Your task to perform on an android device: turn on the 12-hour format for clock Image 0: 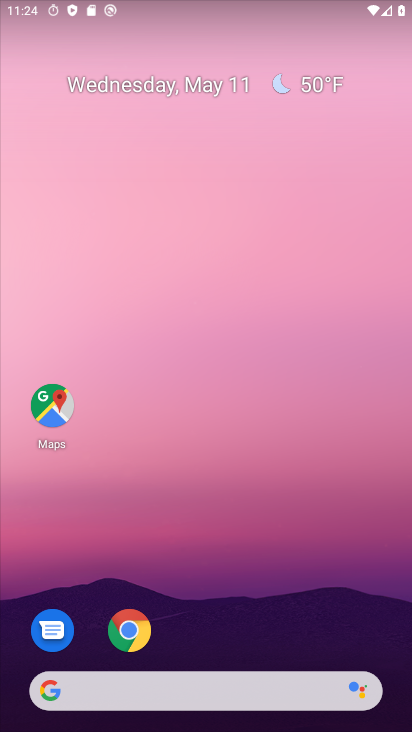
Step 0: drag from (209, 524) to (206, 240)
Your task to perform on an android device: turn on the 12-hour format for clock Image 1: 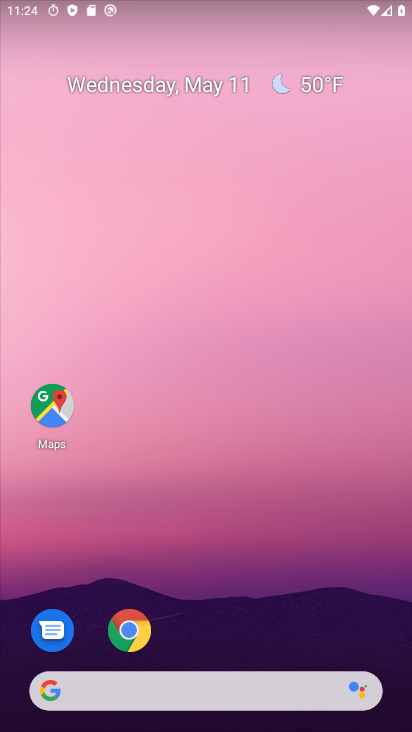
Step 1: drag from (221, 641) to (232, 165)
Your task to perform on an android device: turn on the 12-hour format for clock Image 2: 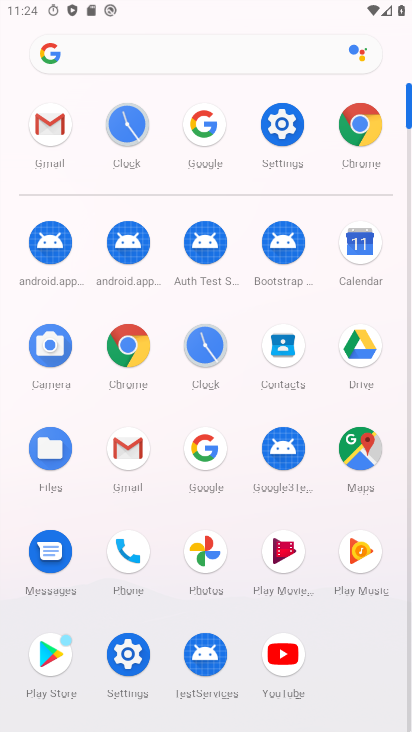
Step 2: click (277, 124)
Your task to perform on an android device: turn on the 12-hour format for clock Image 3: 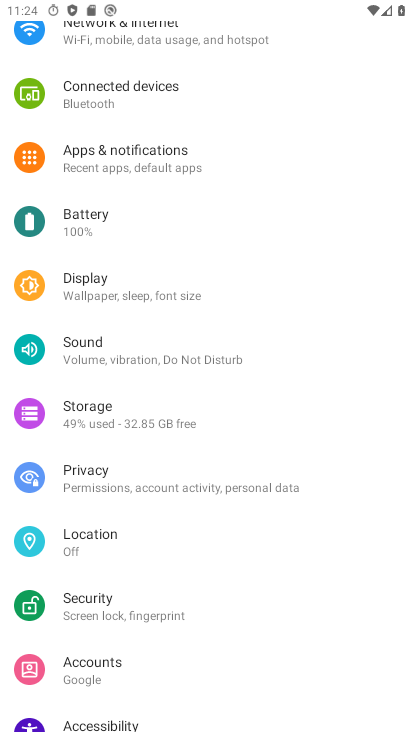
Step 3: drag from (131, 654) to (118, 216)
Your task to perform on an android device: turn on the 12-hour format for clock Image 4: 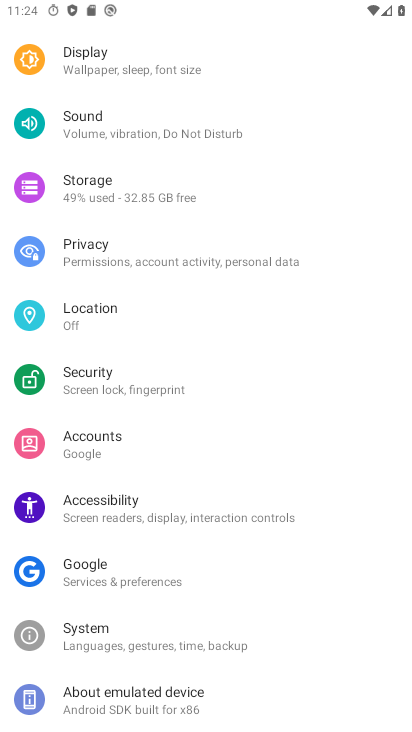
Step 4: press home button
Your task to perform on an android device: turn on the 12-hour format for clock Image 5: 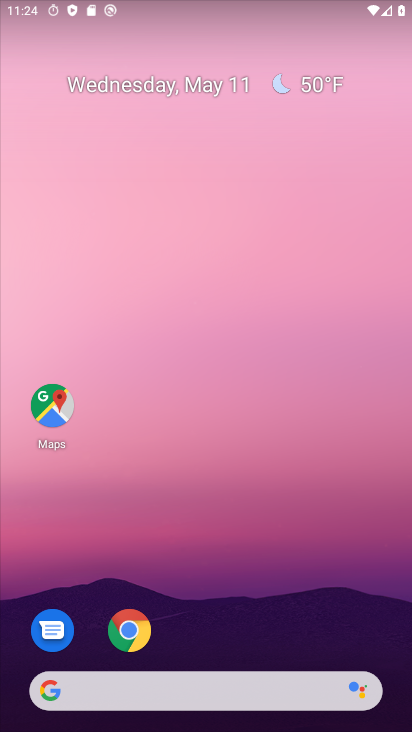
Step 5: drag from (237, 624) to (282, 181)
Your task to perform on an android device: turn on the 12-hour format for clock Image 6: 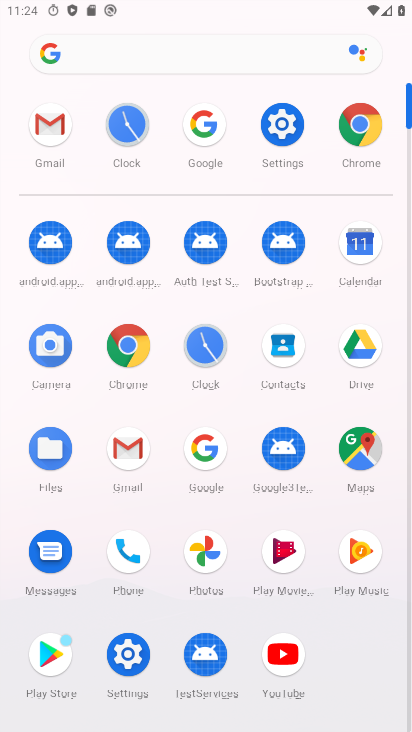
Step 6: click (200, 356)
Your task to perform on an android device: turn on the 12-hour format for clock Image 7: 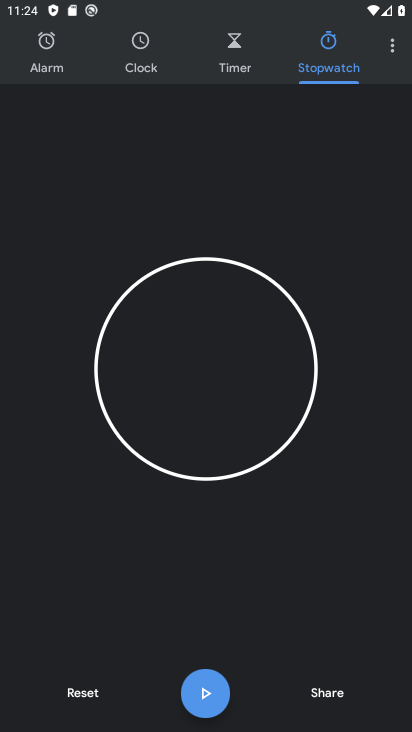
Step 7: click (390, 50)
Your task to perform on an android device: turn on the 12-hour format for clock Image 8: 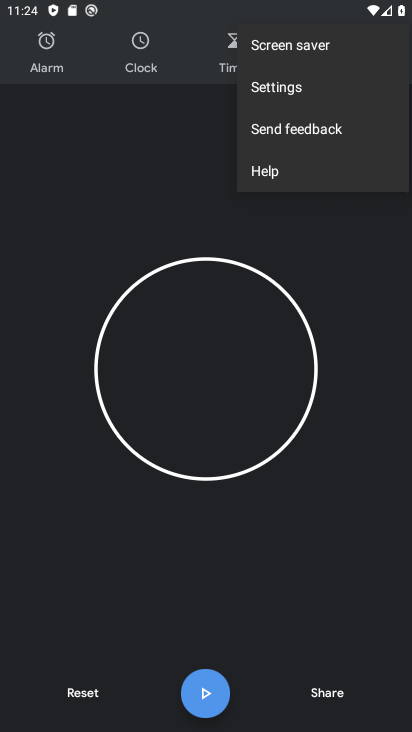
Step 8: click (303, 97)
Your task to perform on an android device: turn on the 12-hour format for clock Image 9: 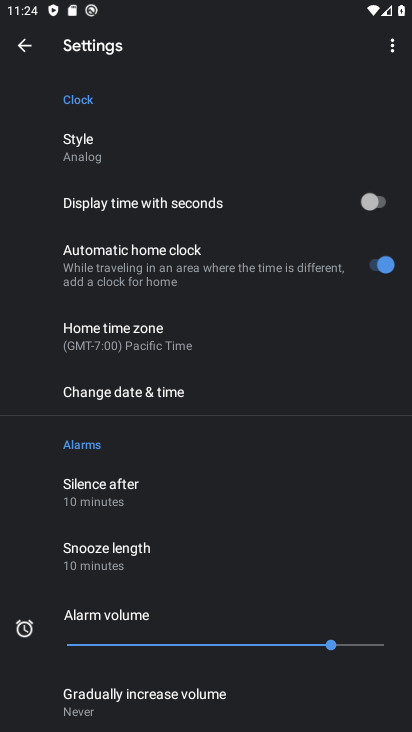
Step 9: click (180, 395)
Your task to perform on an android device: turn on the 12-hour format for clock Image 10: 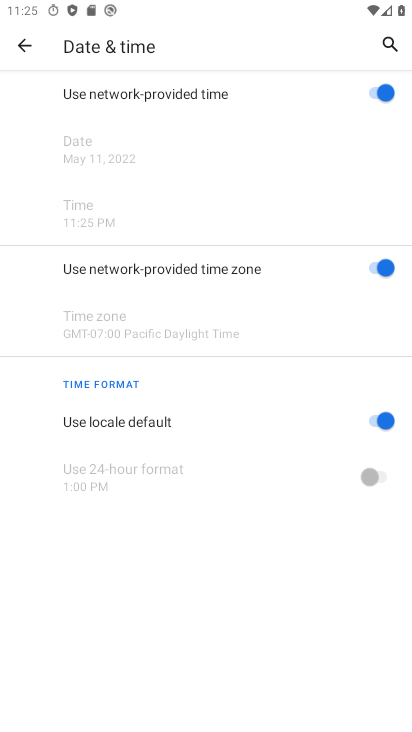
Step 10: task complete